Your task to perform on an android device: Go to privacy settings Image 0: 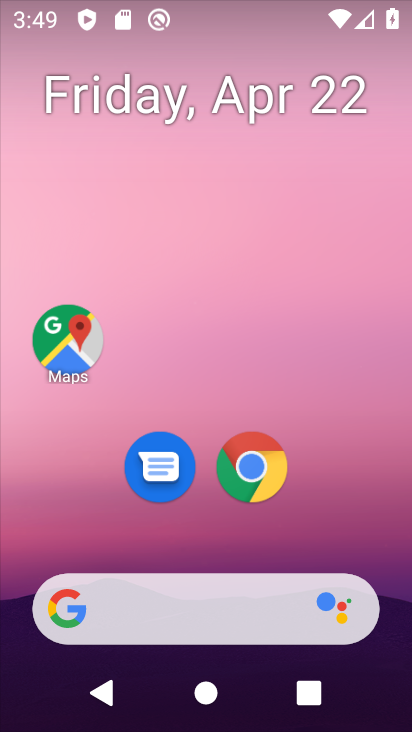
Step 0: click (252, 461)
Your task to perform on an android device: Go to privacy settings Image 1: 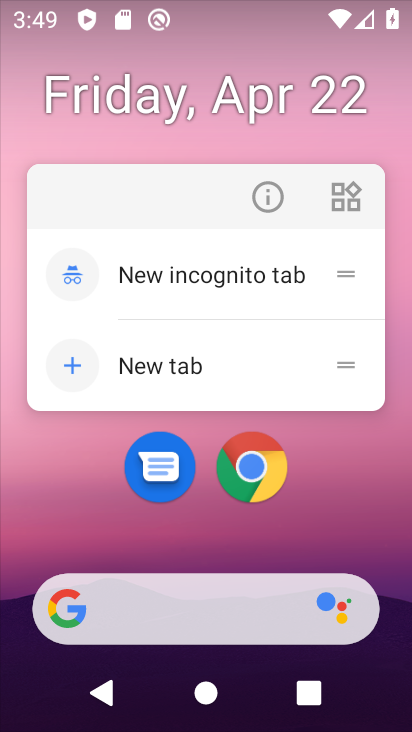
Step 1: click (339, 510)
Your task to perform on an android device: Go to privacy settings Image 2: 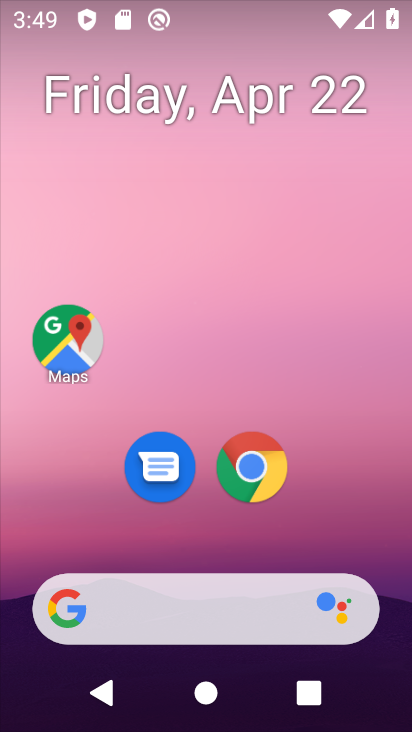
Step 2: drag from (219, 566) to (209, 114)
Your task to perform on an android device: Go to privacy settings Image 3: 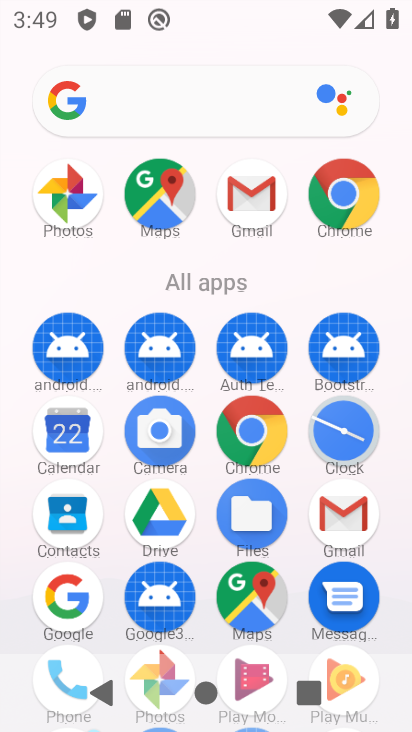
Step 3: drag from (194, 559) to (193, 158)
Your task to perform on an android device: Go to privacy settings Image 4: 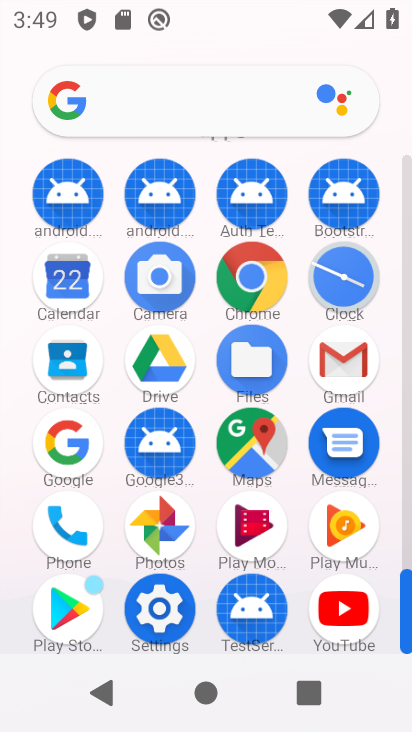
Step 4: click (158, 606)
Your task to perform on an android device: Go to privacy settings Image 5: 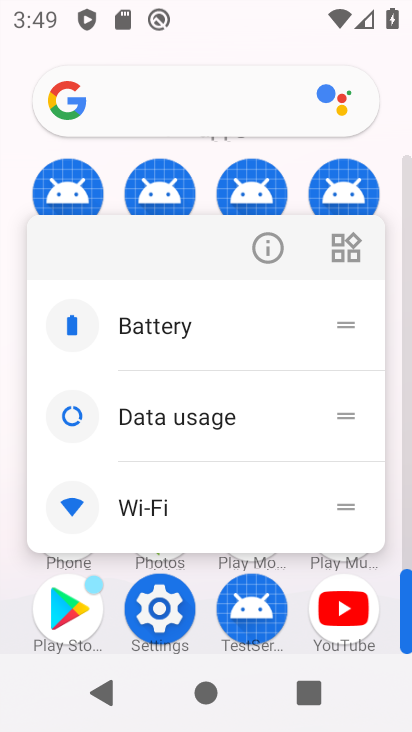
Step 5: click (158, 604)
Your task to perform on an android device: Go to privacy settings Image 6: 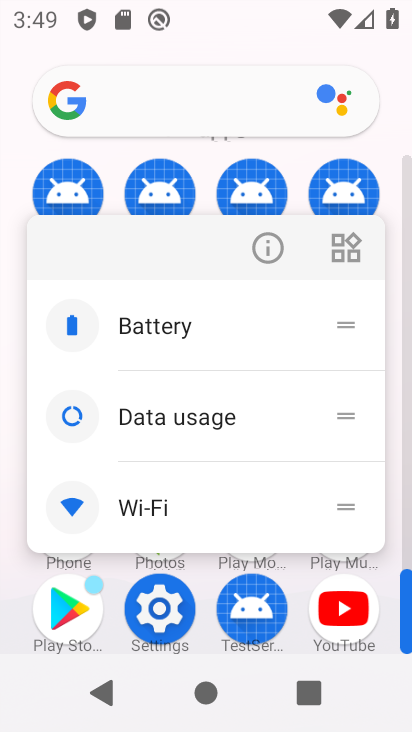
Step 6: click (154, 599)
Your task to perform on an android device: Go to privacy settings Image 7: 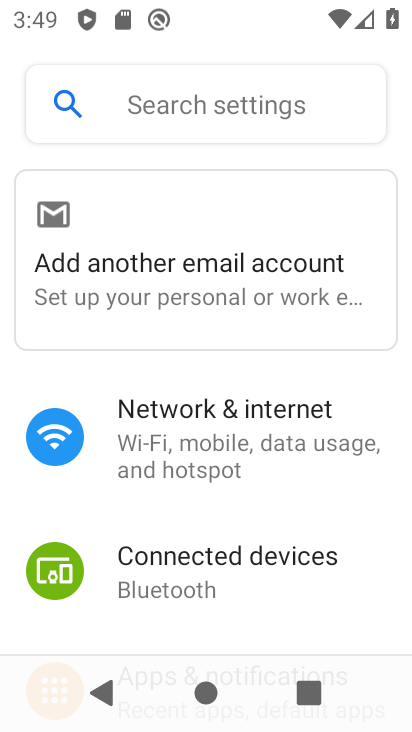
Step 7: drag from (219, 630) to (232, 161)
Your task to perform on an android device: Go to privacy settings Image 8: 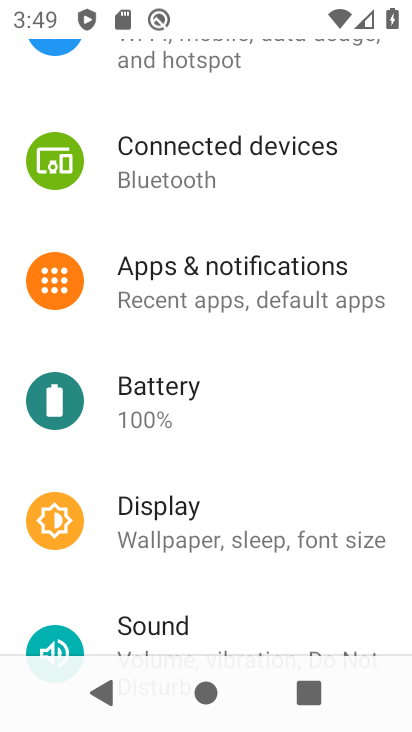
Step 8: drag from (224, 629) to (214, 73)
Your task to perform on an android device: Go to privacy settings Image 9: 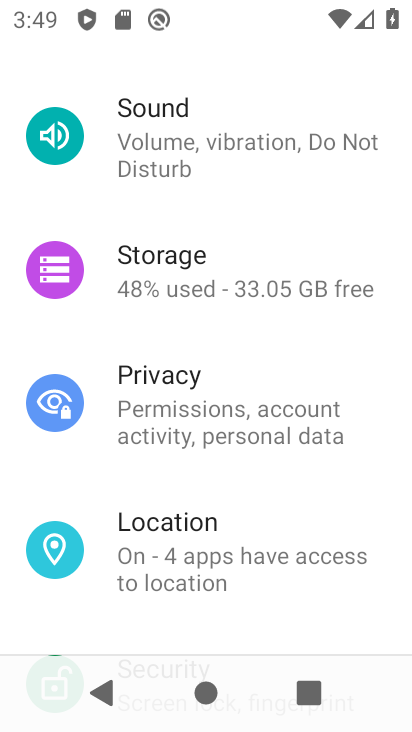
Step 9: click (96, 382)
Your task to perform on an android device: Go to privacy settings Image 10: 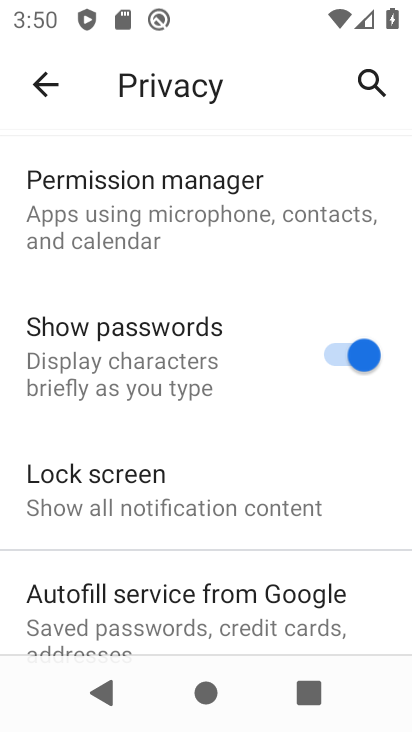
Step 10: drag from (198, 581) to (193, 159)
Your task to perform on an android device: Go to privacy settings Image 11: 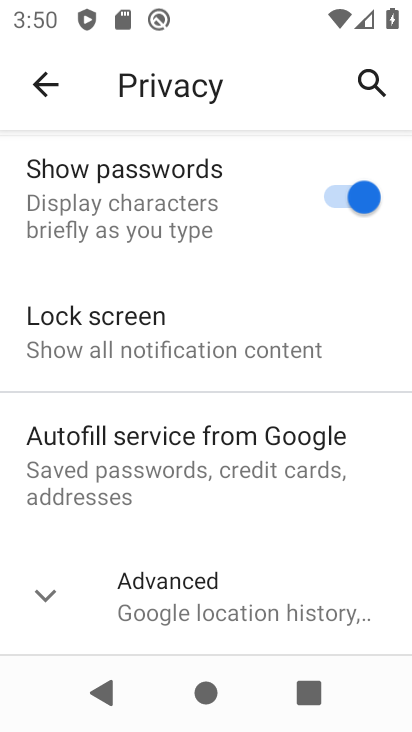
Step 11: click (40, 583)
Your task to perform on an android device: Go to privacy settings Image 12: 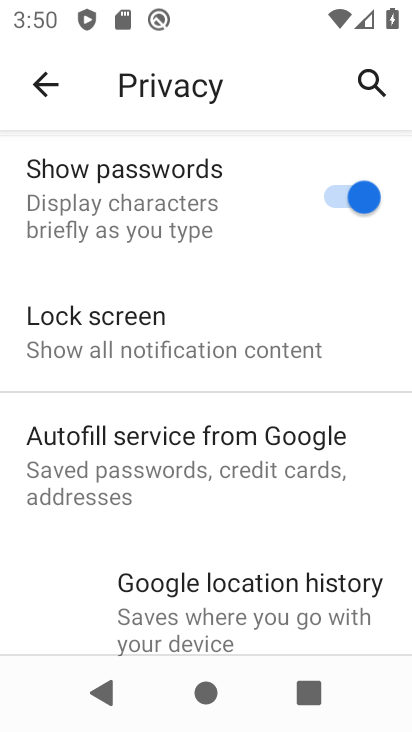
Step 12: task complete